Your task to perform on an android device: Go to Wikipedia Image 0: 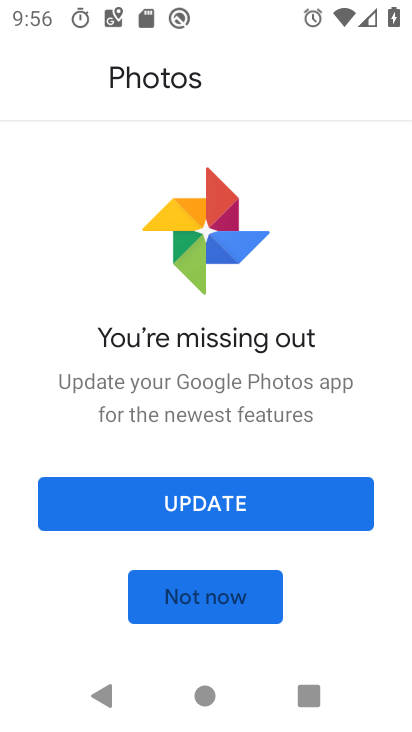
Step 0: click (175, 592)
Your task to perform on an android device: Go to Wikipedia Image 1: 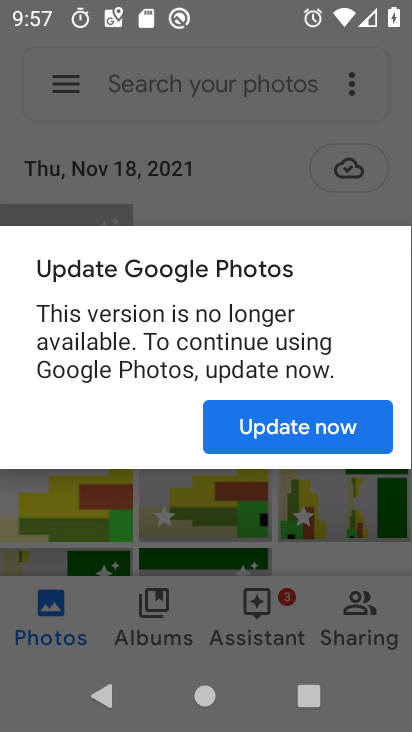
Step 1: click (287, 415)
Your task to perform on an android device: Go to Wikipedia Image 2: 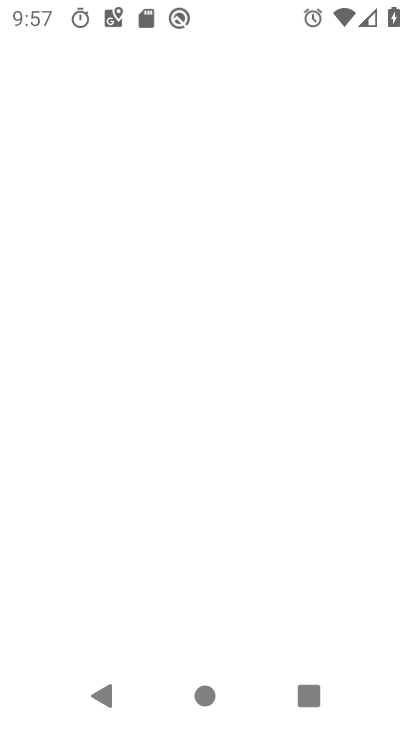
Step 2: press home button
Your task to perform on an android device: Go to Wikipedia Image 3: 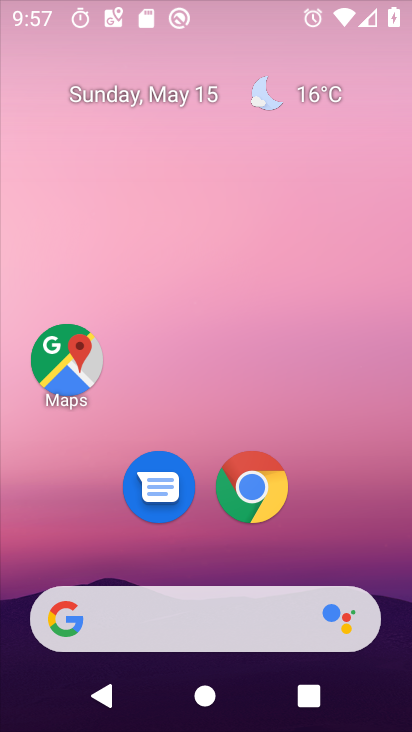
Step 3: drag from (332, 556) to (323, 167)
Your task to perform on an android device: Go to Wikipedia Image 4: 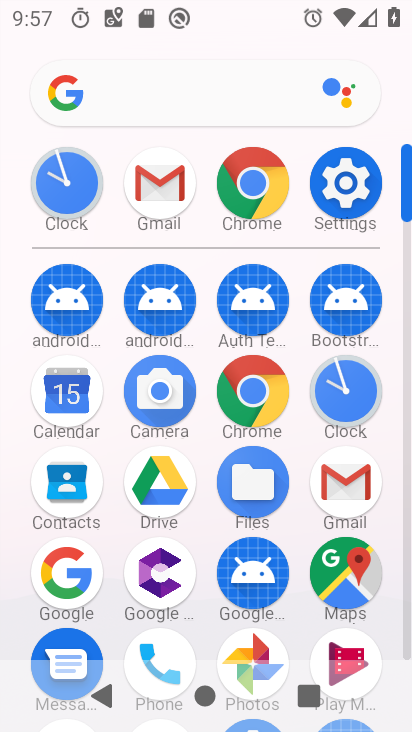
Step 4: click (269, 146)
Your task to perform on an android device: Go to Wikipedia Image 5: 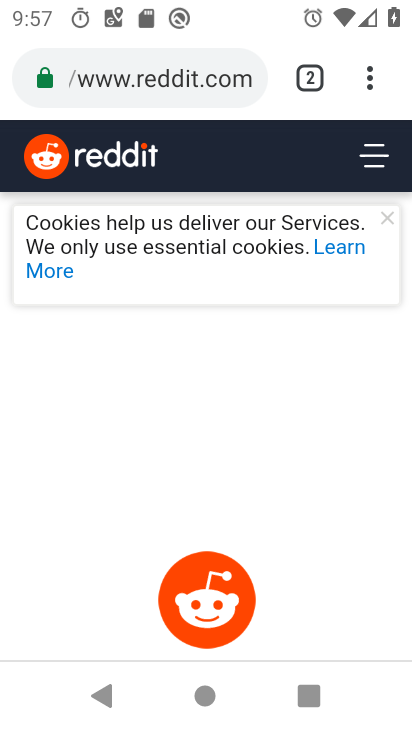
Step 5: click (211, 75)
Your task to perform on an android device: Go to Wikipedia Image 6: 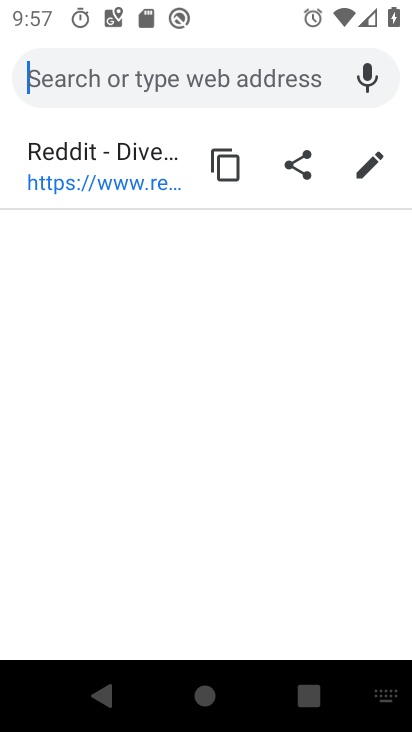
Step 6: type "wikipedia"
Your task to perform on an android device: Go to Wikipedia Image 7: 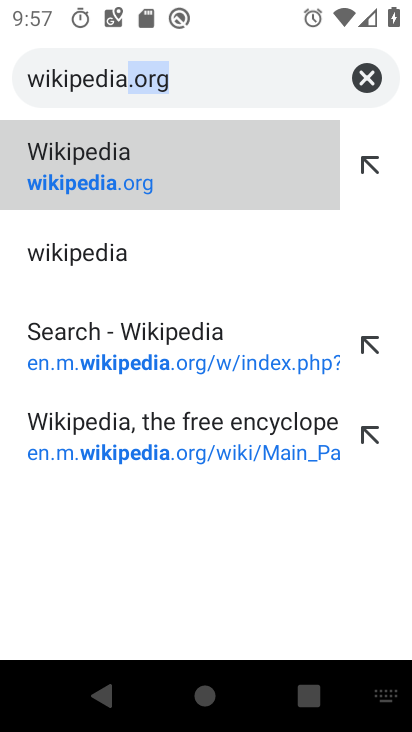
Step 7: click (116, 187)
Your task to perform on an android device: Go to Wikipedia Image 8: 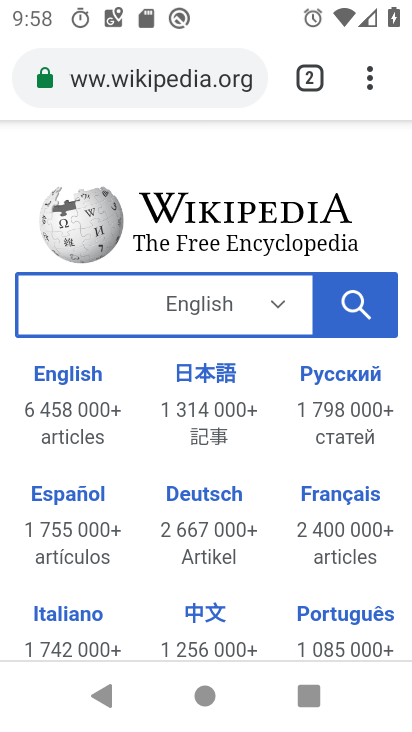
Step 8: task complete